Your task to perform on an android device: Open location settings Image 0: 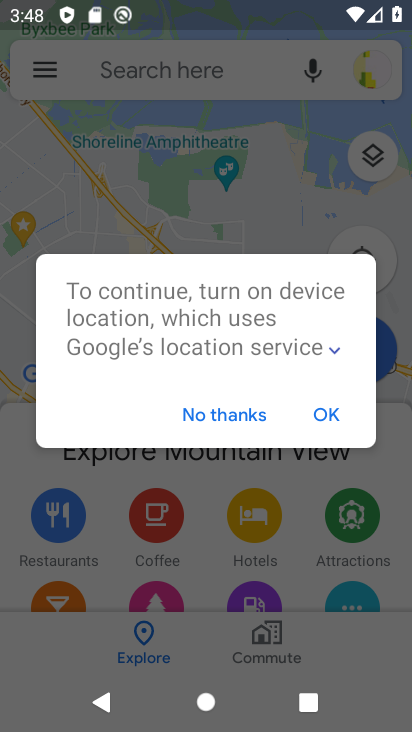
Step 0: press home button
Your task to perform on an android device: Open location settings Image 1: 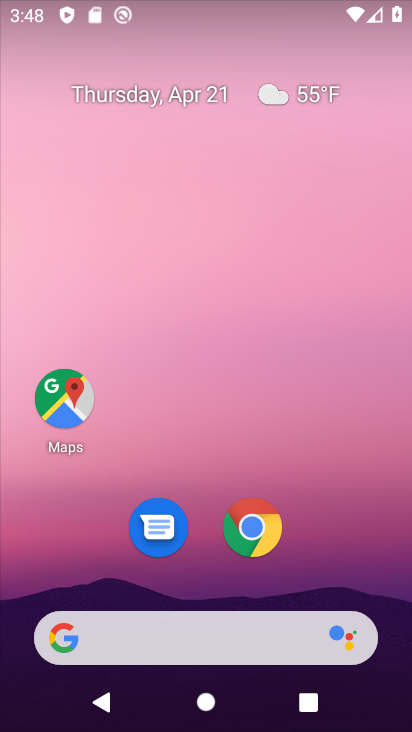
Step 1: drag from (369, 559) to (291, 129)
Your task to perform on an android device: Open location settings Image 2: 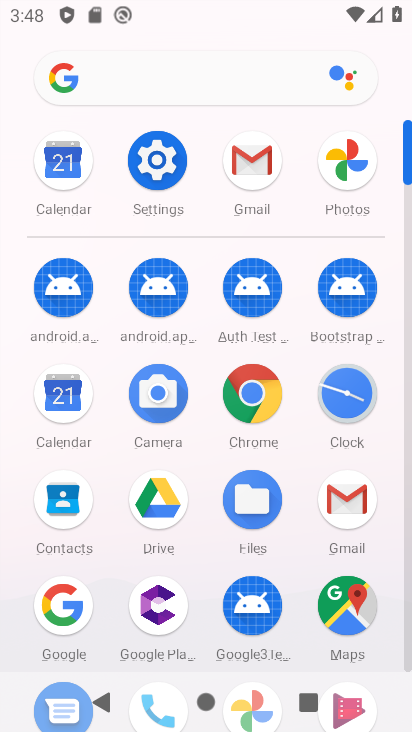
Step 2: click (155, 157)
Your task to perform on an android device: Open location settings Image 3: 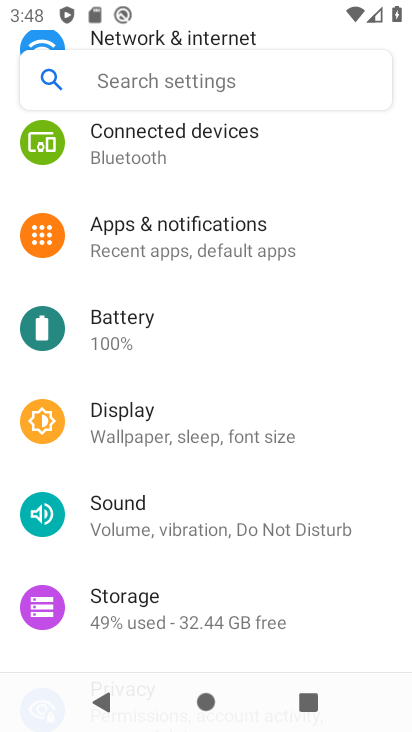
Step 3: drag from (187, 537) to (197, 243)
Your task to perform on an android device: Open location settings Image 4: 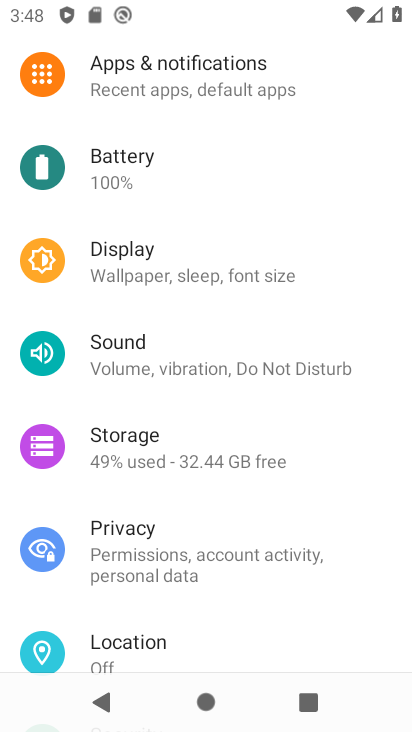
Step 4: click (192, 649)
Your task to perform on an android device: Open location settings Image 5: 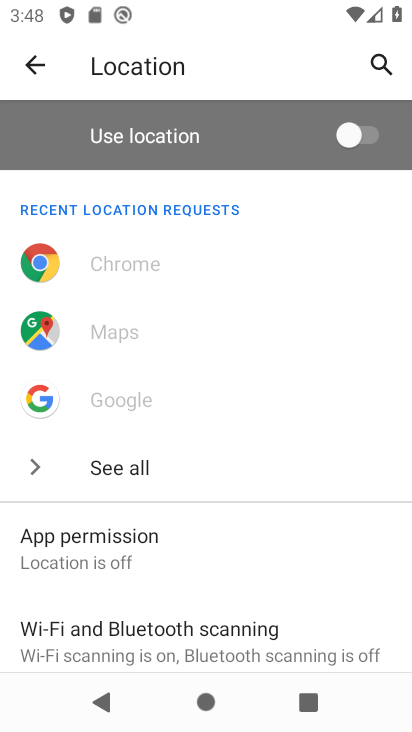
Step 5: task complete